Your task to perform on an android device: toggle improve location accuracy Image 0: 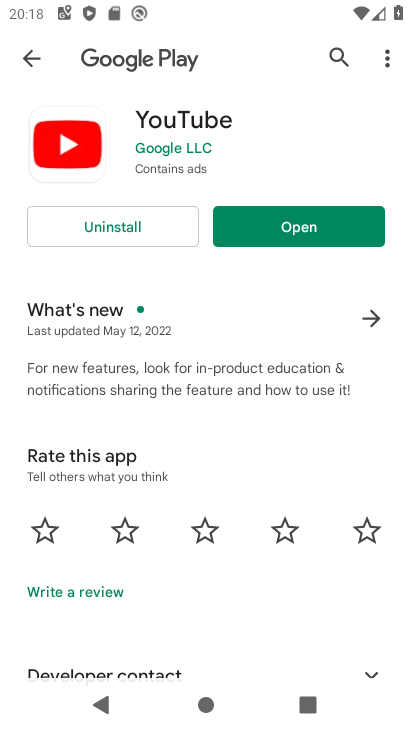
Step 0: press home button
Your task to perform on an android device: toggle improve location accuracy Image 1: 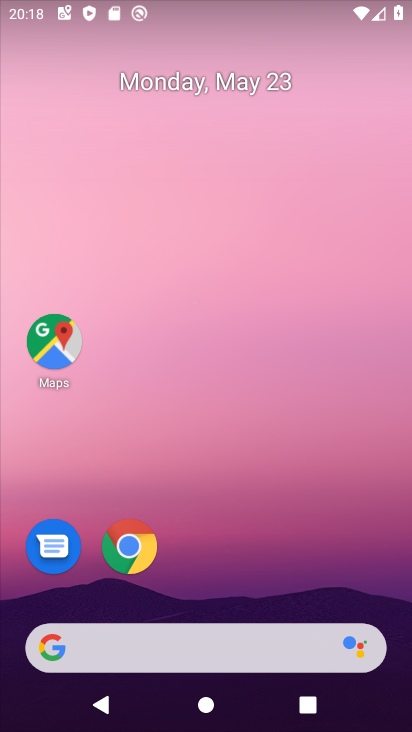
Step 1: drag from (357, 580) to (364, 103)
Your task to perform on an android device: toggle improve location accuracy Image 2: 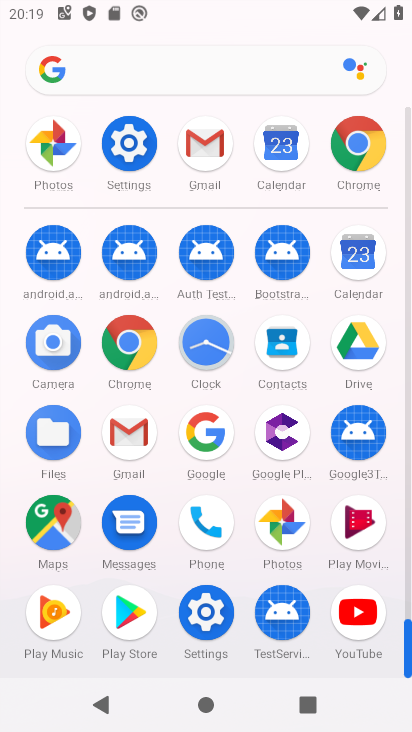
Step 2: click (210, 626)
Your task to perform on an android device: toggle improve location accuracy Image 3: 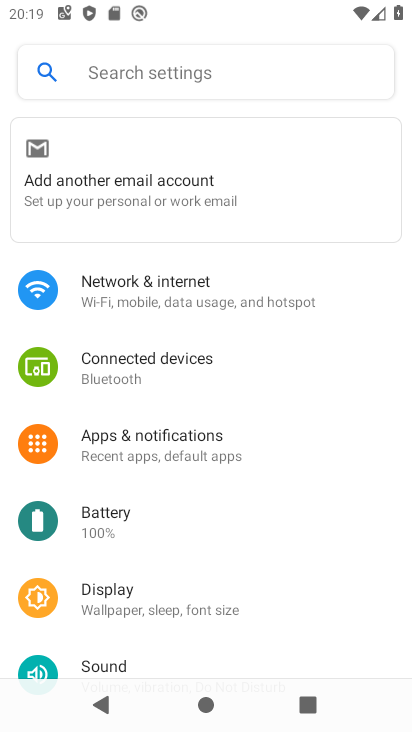
Step 3: drag from (351, 615) to (348, 527)
Your task to perform on an android device: toggle improve location accuracy Image 4: 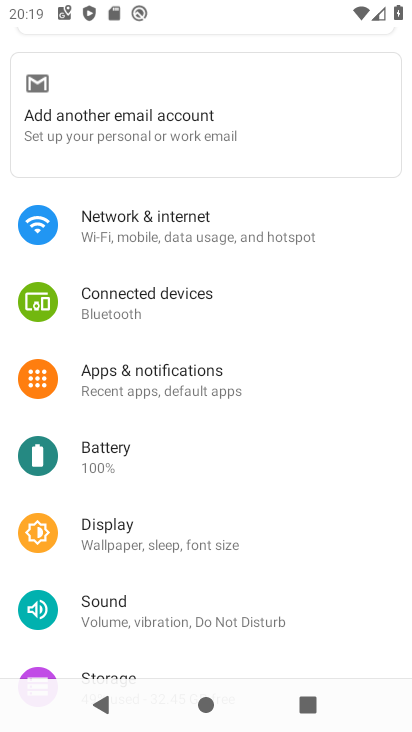
Step 4: drag from (361, 633) to (366, 535)
Your task to perform on an android device: toggle improve location accuracy Image 5: 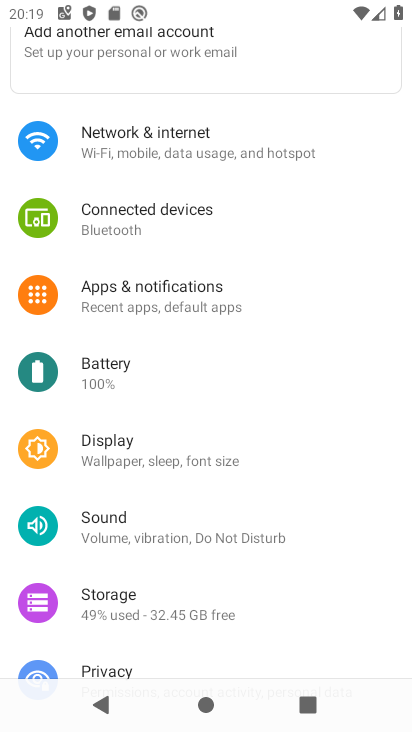
Step 5: drag from (370, 627) to (360, 513)
Your task to perform on an android device: toggle improve location accuracy Image 6: 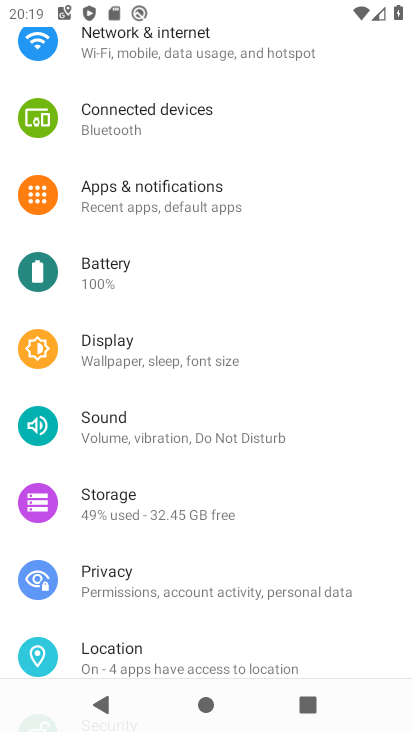
Step 6: drag from (370, 621) to (371, 543)
Your task to perform on an android device: toggle improve location accuracy Image 7: 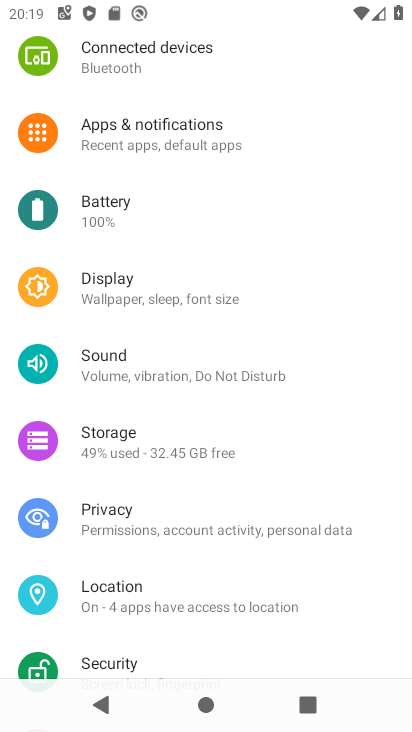
Step 7: drag from (364, 648) to (368, 558)
Your task to perform on an android device: toggle improve location accuracy Image 8: 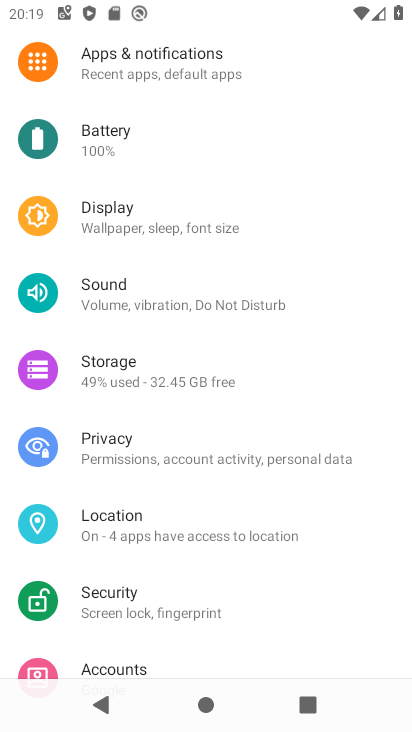
Step 8: drag from (357, 640) to (353, 533)
Your task to perform on an android device: toggle improve location accuracy Image 9: 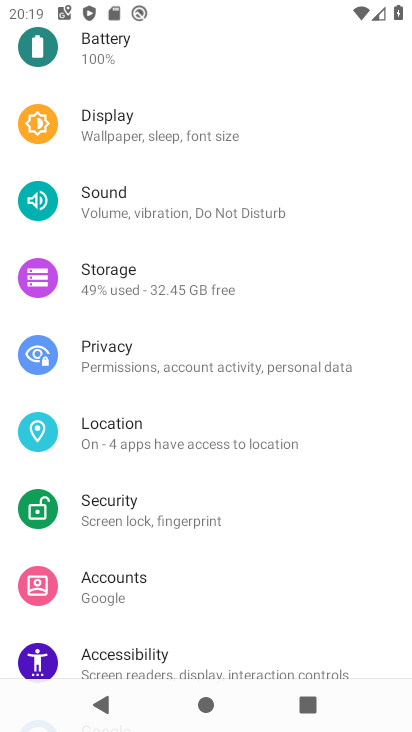
Step 9: drag from (367, 638) to (376, 525)
Your task to perform on an android device: toggle improve location accuracy Image 10: 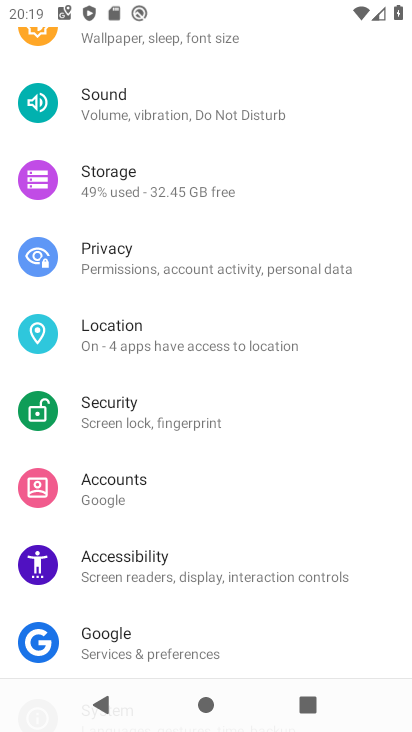
Step 10: drag from (354, 616) to (356, 514)
Your task to perform on an android device: toggle improve location accuracy Image 11: 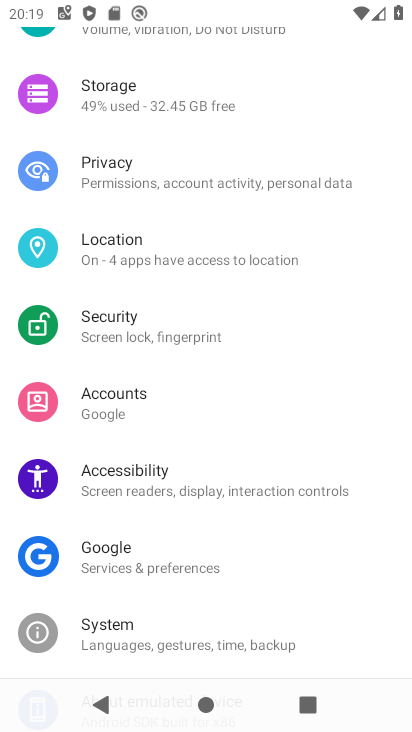
Step 11: drag from (341, 615) to (339, 508)
Your task to perform on an android device: toggle improve location accuracy Image 12: 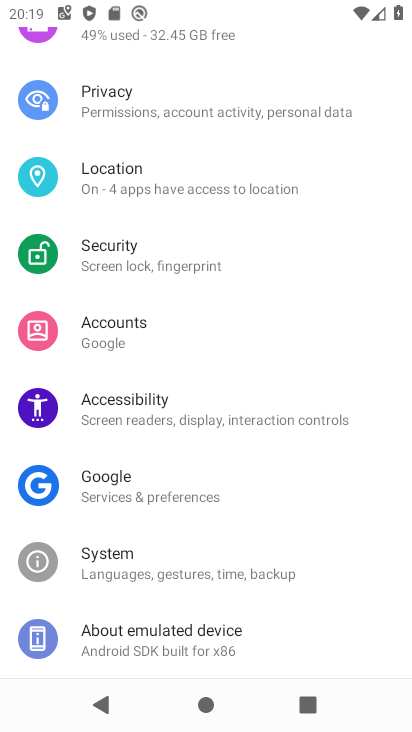
Step 12: drag from (355, 445) to (358, 525)
Your task to perform on an android device: toggle improve location accuracy Image 13: 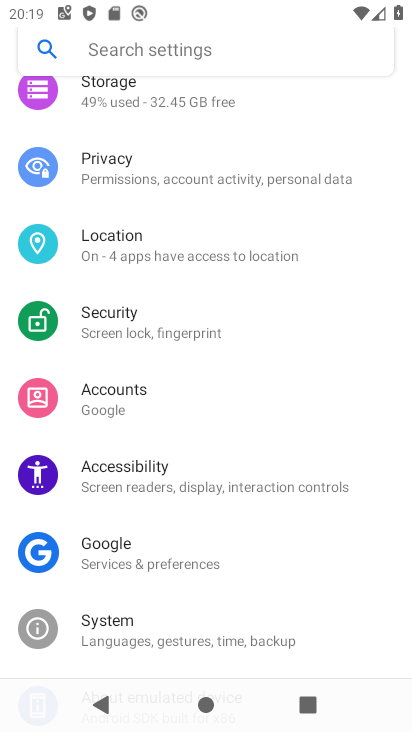
Step 13: drag from (356, 418) to (362, 521)
Your task to perform on an android device: toggle improve location accuracy Image 14: 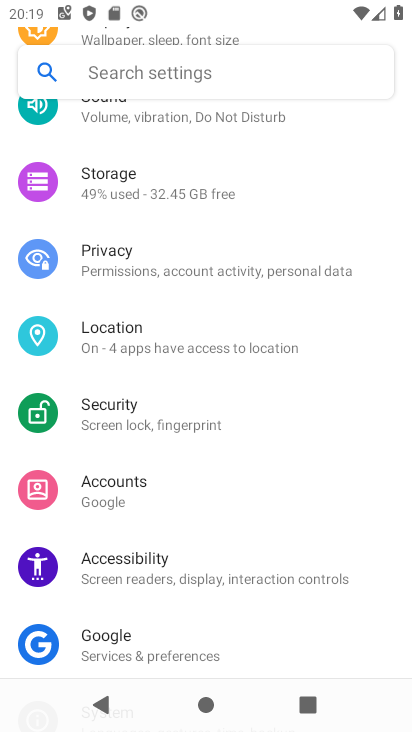
Step 14: drag from (370, 403) to (358, 534)
Your task to perform on an android device: toggle improve location accuracy Image 15: 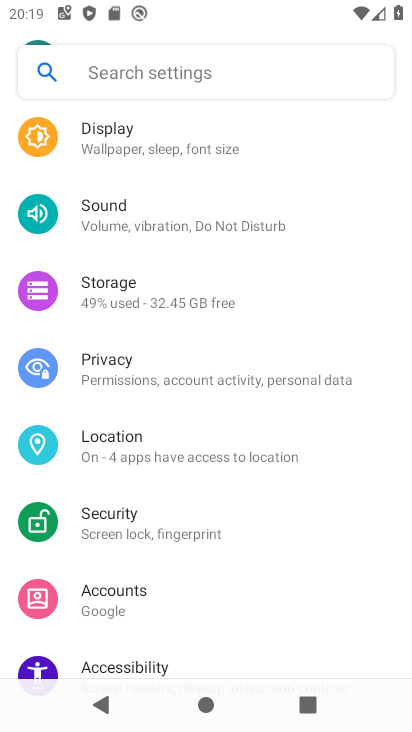
Step 15: drag from (377, 338) to (363, 470)
Your task to perform on an android device: toggle improve location accuracy Image 16: 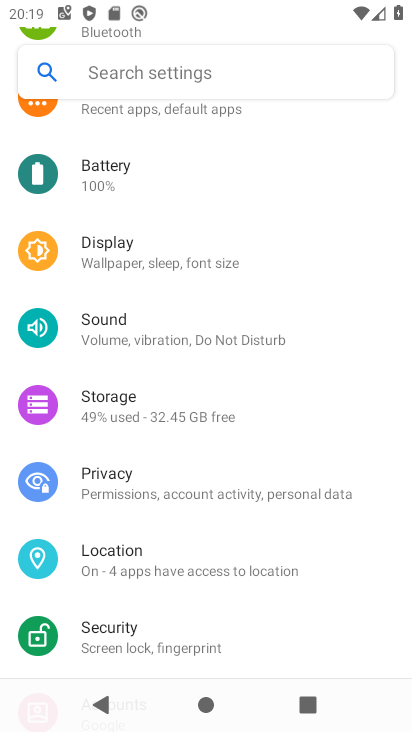
Step 16: click (250, 567)
Your task to perform on an android device: toggle improve location accuracy Image 17: 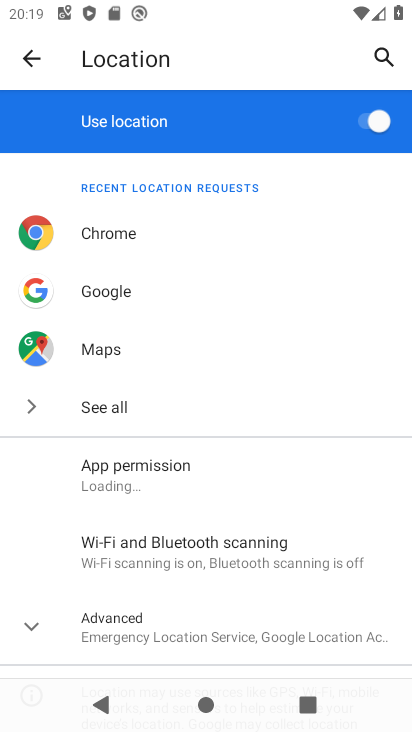
Step 17: drag from (327, 590) to (322, 455)
Your task to perform on an android device: toggle improve location accuracy Image 18: 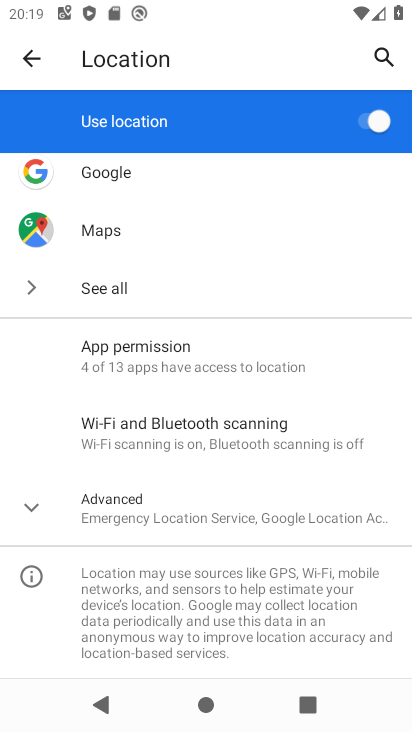
Step 18: click (261, 508)
Your task to perform on an android device: toggle improve location accuracy Image 19: 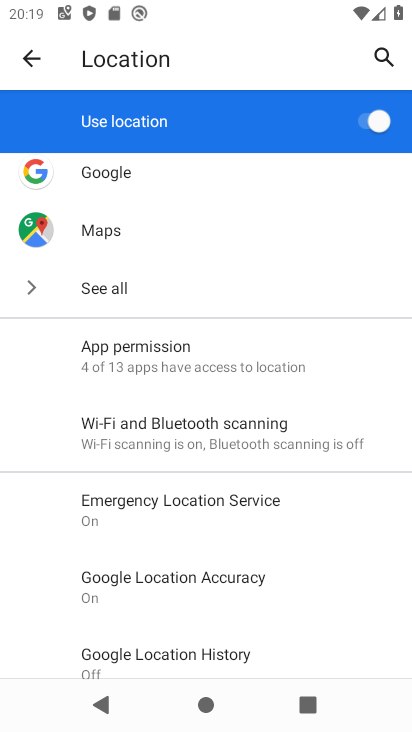
Step 19: drag from (272, 593) to (284, 501)
Your task to perform on an android device: toggle improve location accuracy Image 20: 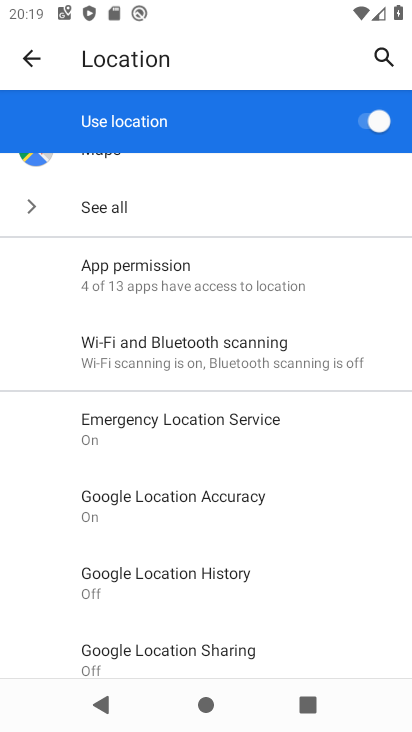
Step 20: drag from (319, 620) to (314, 515)
Your task to perform on an android device: toggle improve location accuracy Image 21: 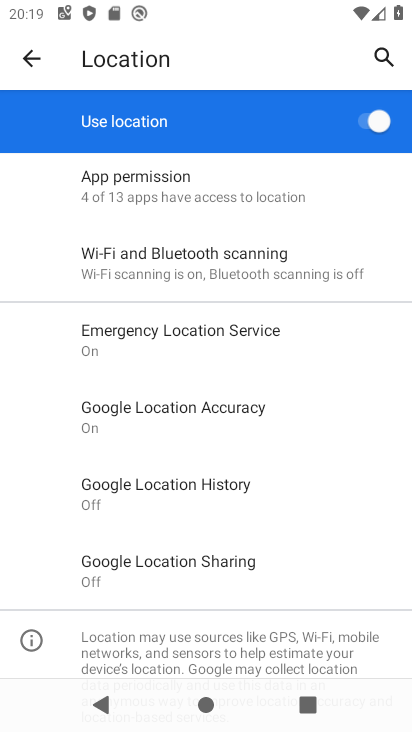
Step 21: drag from (325, 616) to (329, 519)
Your task to perform on an android device: toggle improve location accuracy Image 22: 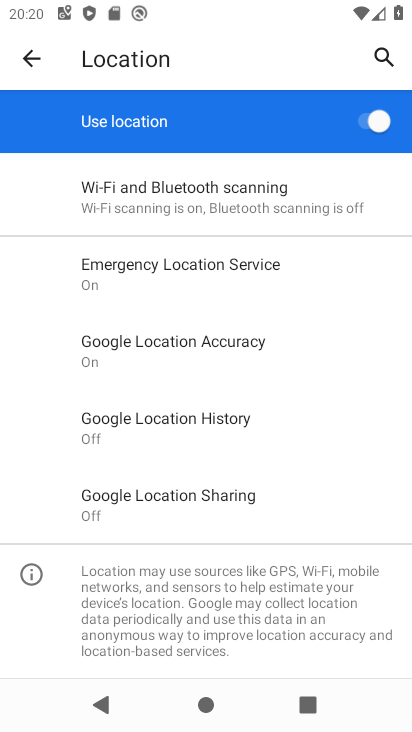
Step 22: click (218, 342)
Your task to perform on an android device: toggle improve location accuracy Image 23: 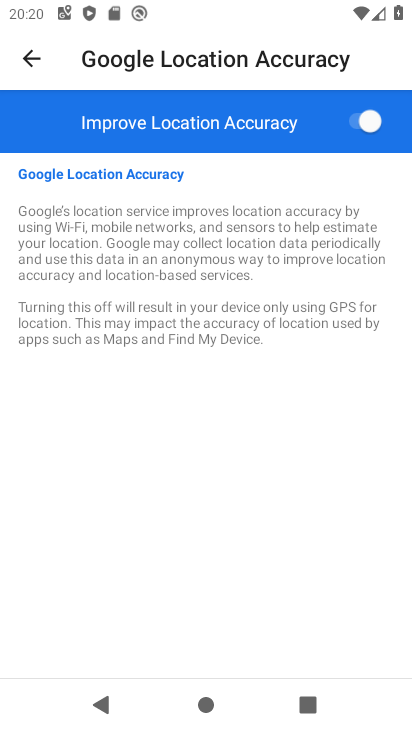
Step 23: click (381, 125)
Your task to perform on an android device: toggle improve location accuracy Image 24: 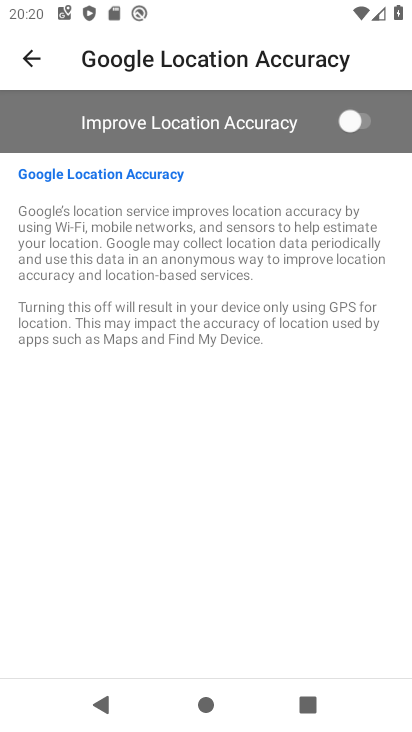
Step 24: task complete